Your task to perform on an android device: Open Yahoo.com Image 0: 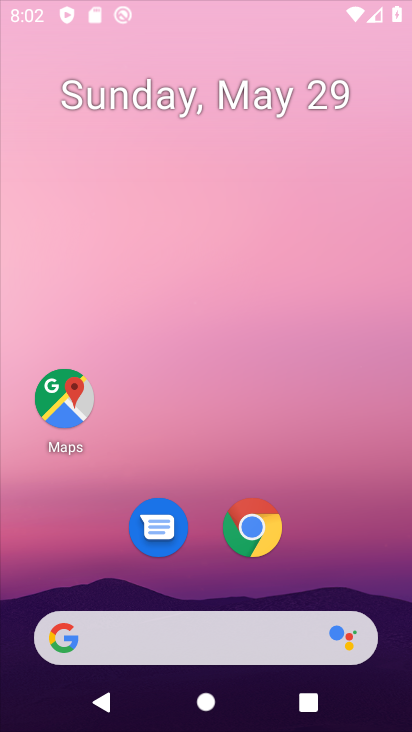
Step 0: press home button
Your task to perform on an android device: Open Yahoo.com Image 1: 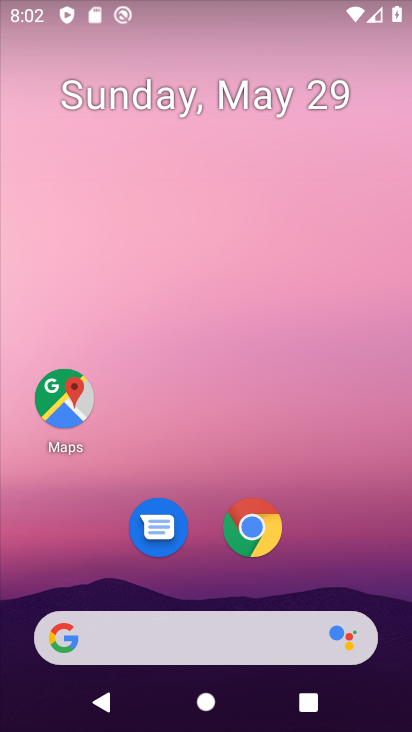
Step 1: press home button
Your task to perform on an android device: Open Yahoo.com Image 2: 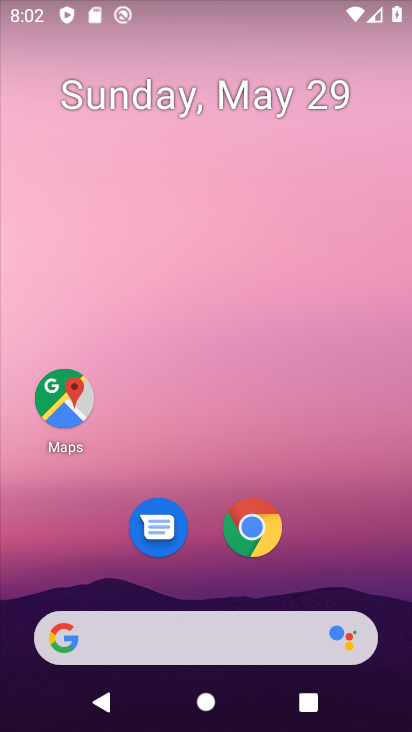
Step 2: click (249, 523)
Your task to perform on an android device: Open Yahoo.com Image 3: 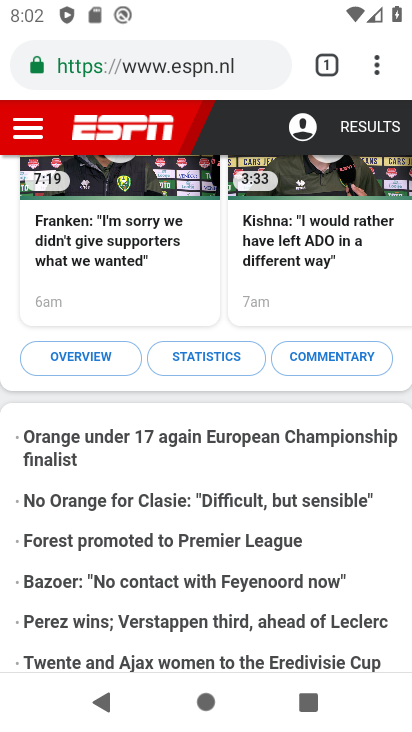
Step 3: click (326, 61)
Your task to perform on an android device: Open Yahoo.com Image 4: 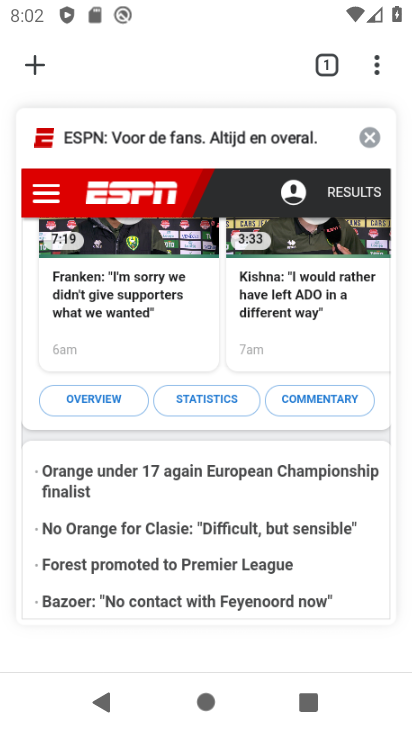
Step 4: click (370, 132)
Your task to perform on an android device: Open Yahoo.com Image 5: 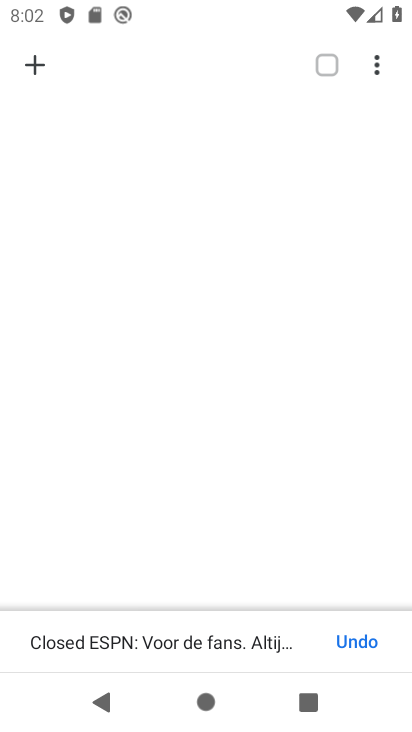
Step 5: click (34, 64)
Your task to perform on an android device: Open Yahoo.com Image 6: 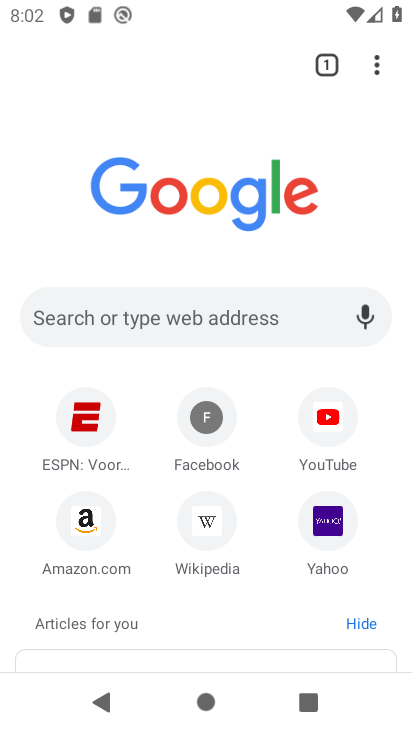
Step 6: click (330, 513)
Your task to perform on an android device: Open Yahoo.com Image 7: 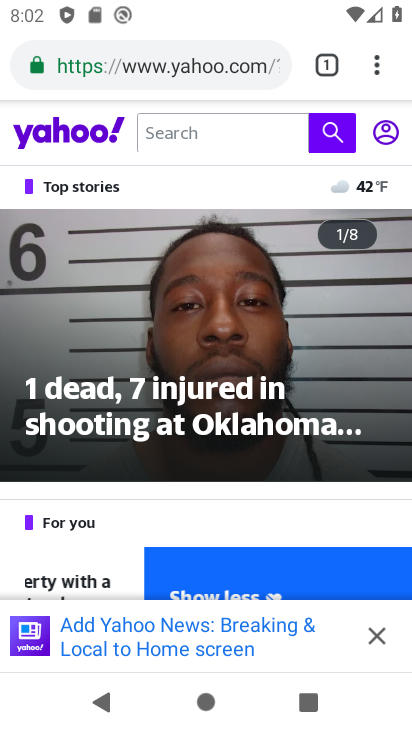
Step 7: task complete